Your task to perform on an android device: Go to battery settings Image 0: 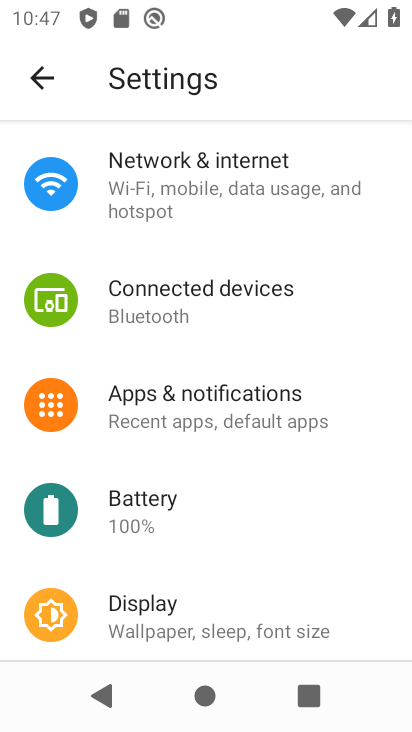
Step 0: click (169, 505)
Your task to perform on an android device: Go to battery settings Image 1: 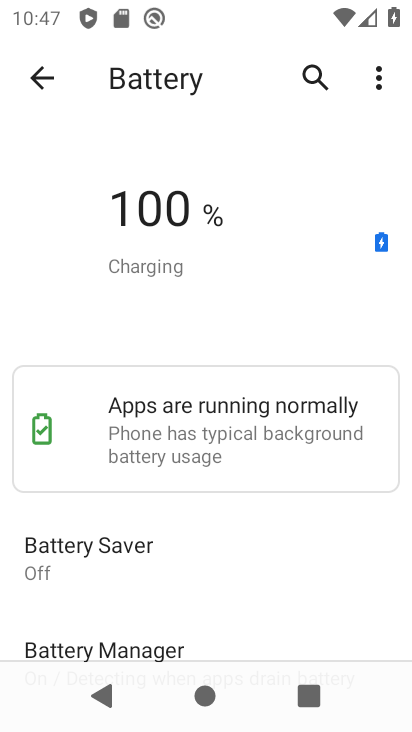
Step 1: click (379, 73)
Your task to perform on an android device: Go to battery settings Image 2: 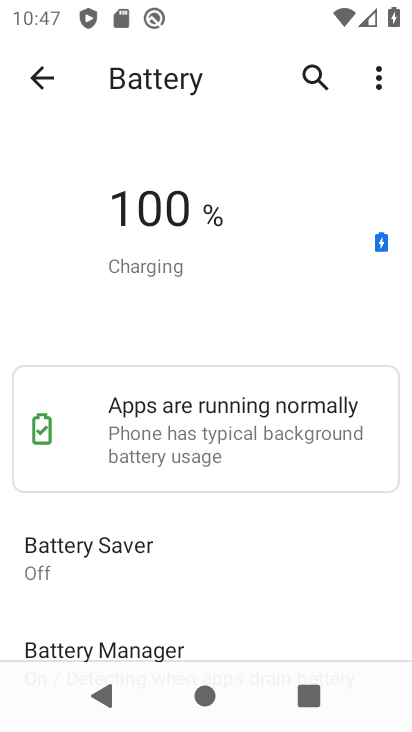
Step 2: click (313, 358)
Your task to perform on an android device: Go to battery settings Image 3: 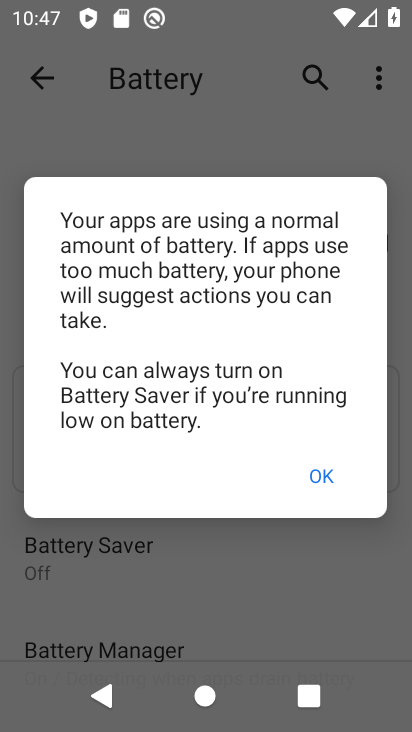
Step 3: task complete